Your task to perform on an android device: Go to location settings Image 0: 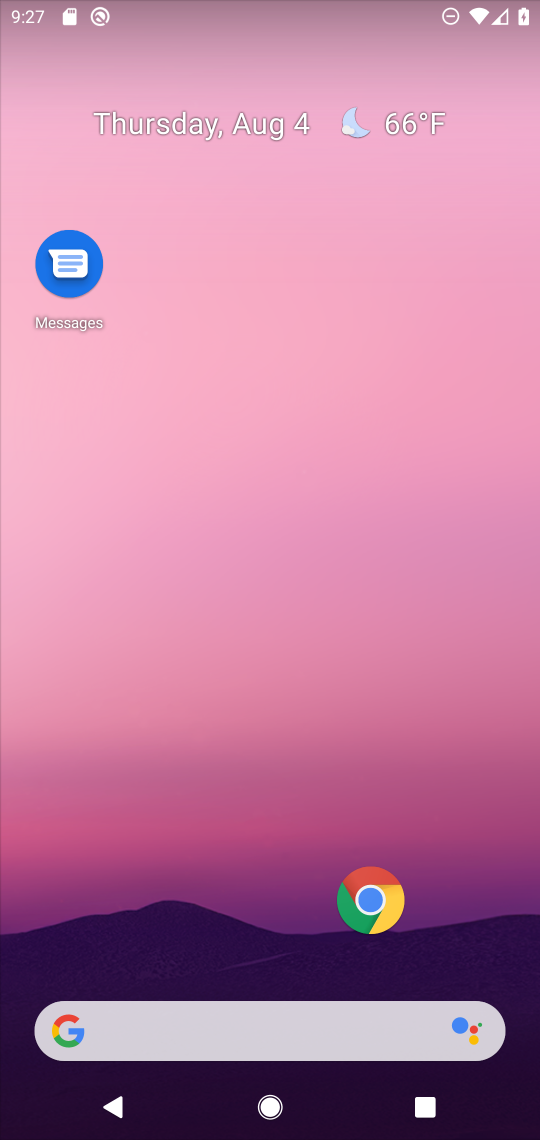
Step 0: drag from (224, 1061) to (216, 55)
Your task to perform on an android device: Go to location settings Image 1: 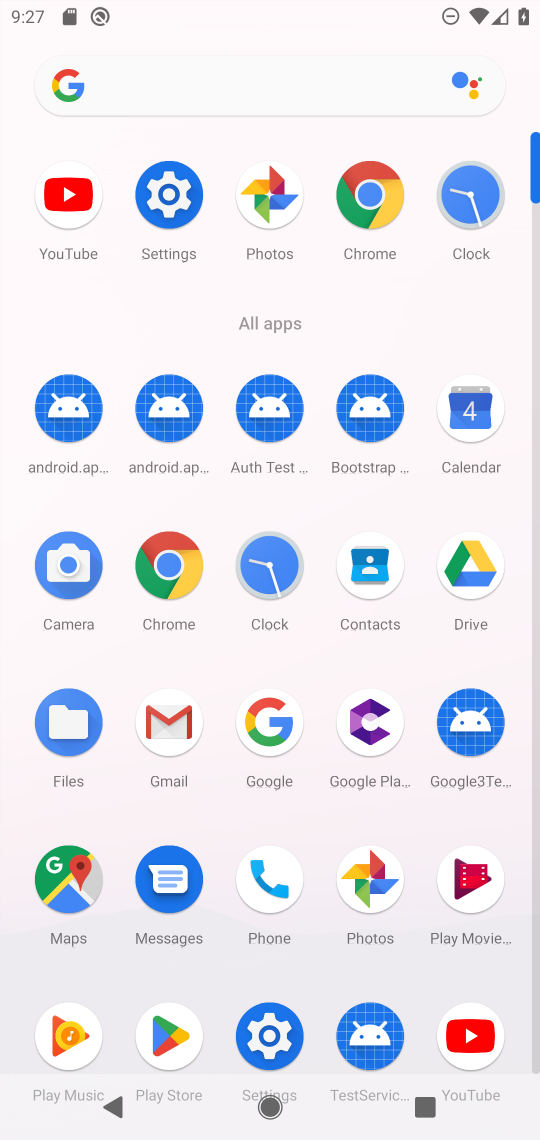
Step 1: click (157, 196)
Your task to perform on an android device: Go to location settings Image 2: 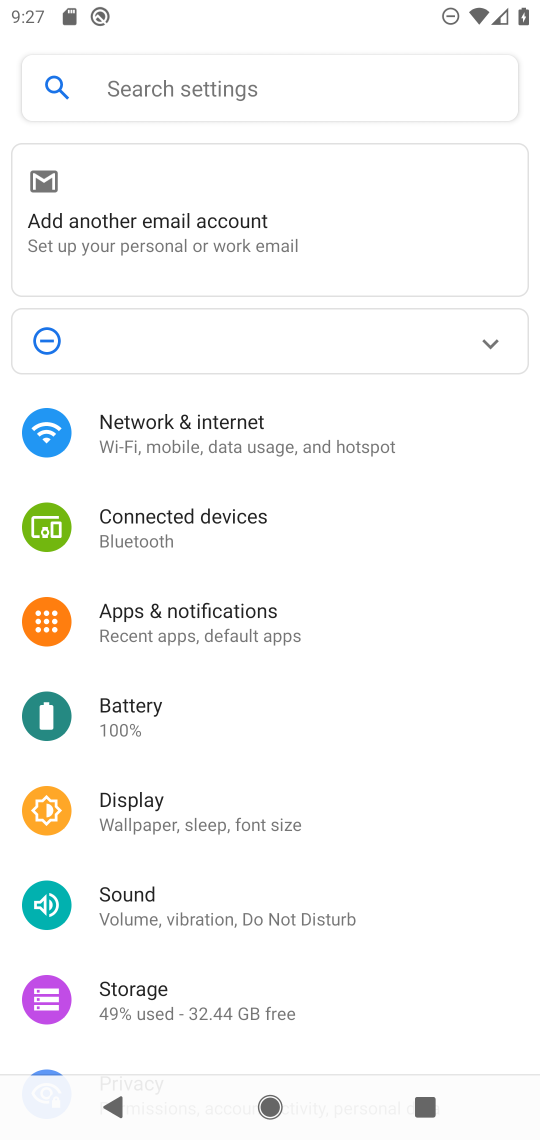
Step 2: drag from (205, 940) to (304, 458)
Your task to perform on an android device: Go to location settings Image 3: 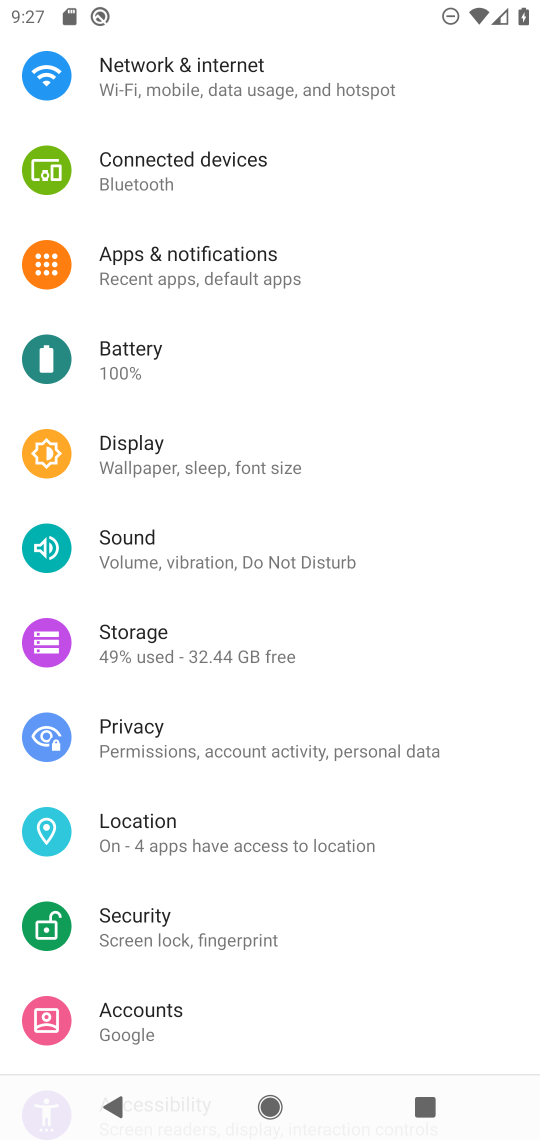
Step 3: click (269, 840)
Your task to perform on an android device: Go to location settings Image 4: 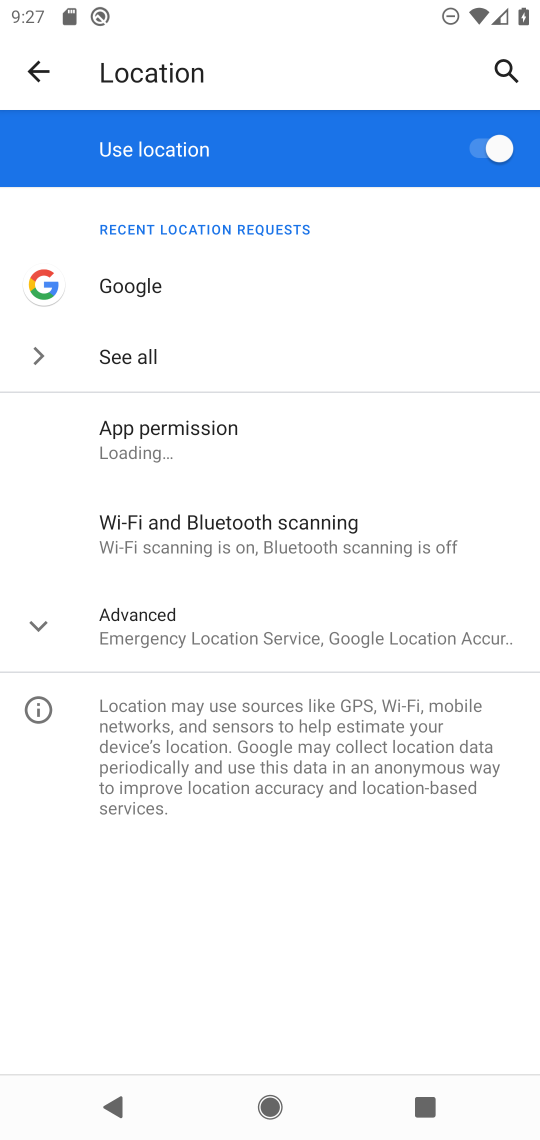
Step 4: task complete